Your task to perform on an android device: set the stopwatch Image 0: 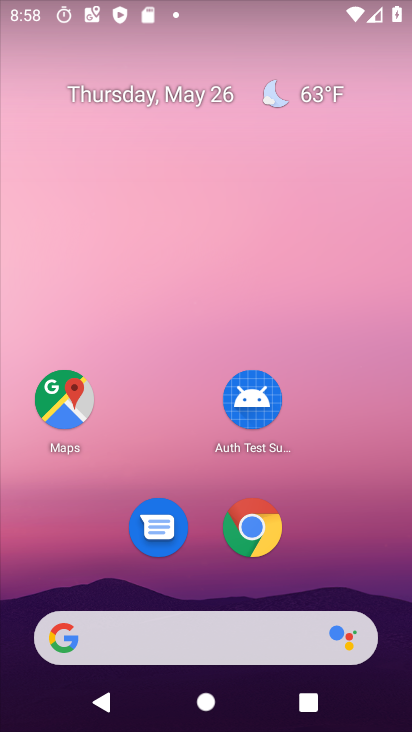
Step 0: drag from (329, 524) to (264, 25)
Your task to perform on an android device: set the stopwatch Image 1: 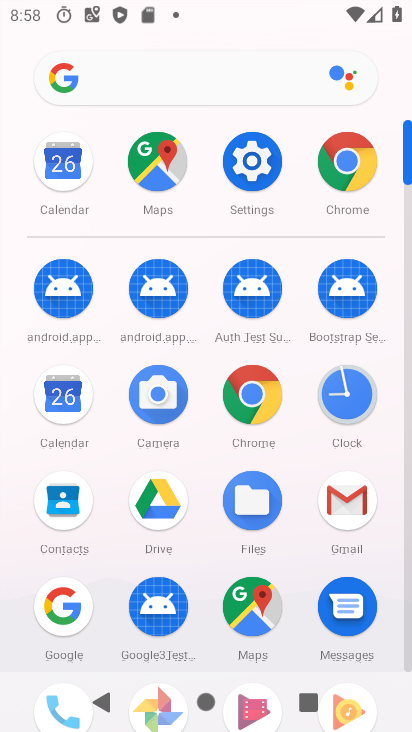
Step 1: click (342, 400)
Your task to perform on an android device: set the stopwatch Image 2: 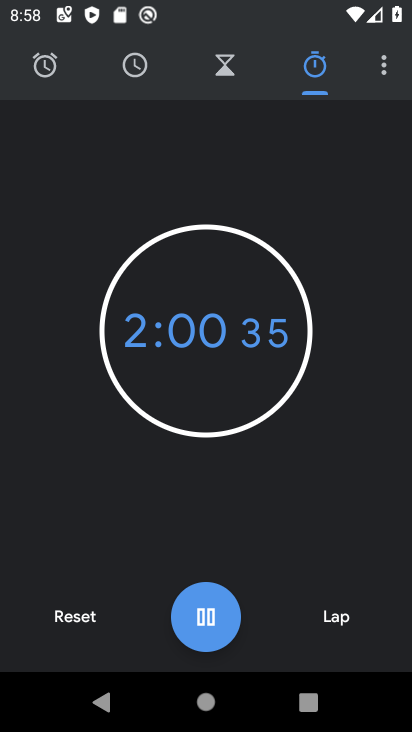
Step 2: task complete